Your task to perform on an android device: Open Youtube and go to the subscriptions tab Image 0: 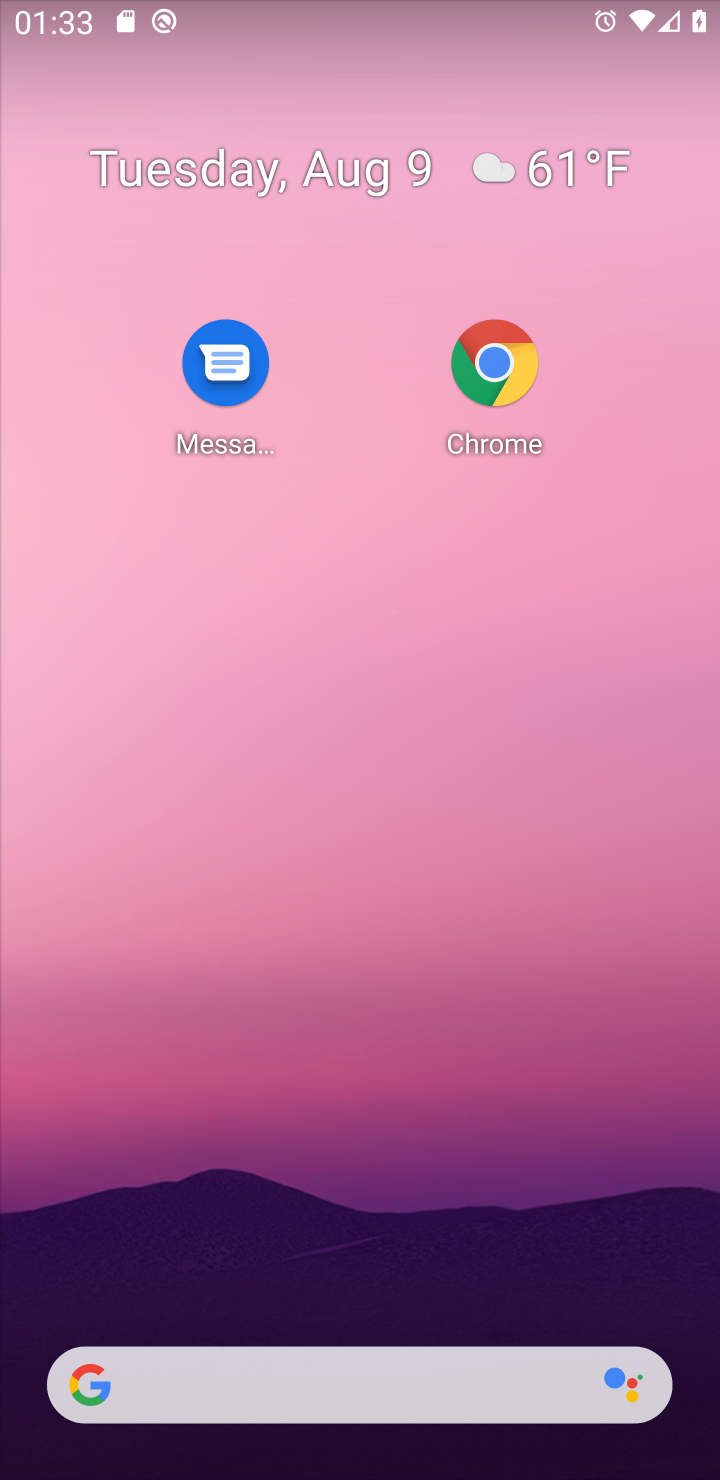
Step 0: drag from (326, 1240) to (501, 426)
Your task to perform on an android device: Open Youtube and go to the subscriptions tab Image 1: 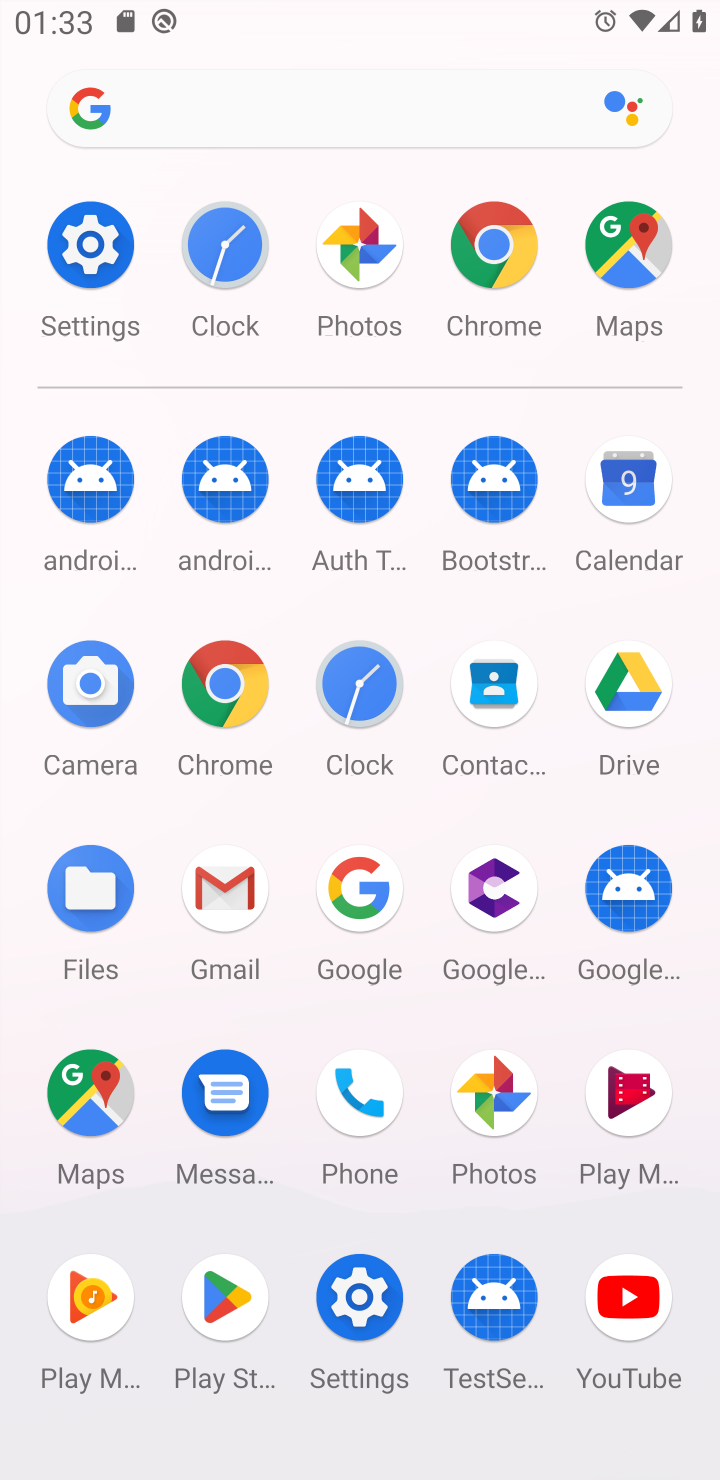
Step 1: click (602, 1322)
Your task to perform on an android device: Open Youtube and go to the subscriptions tab Image 2: 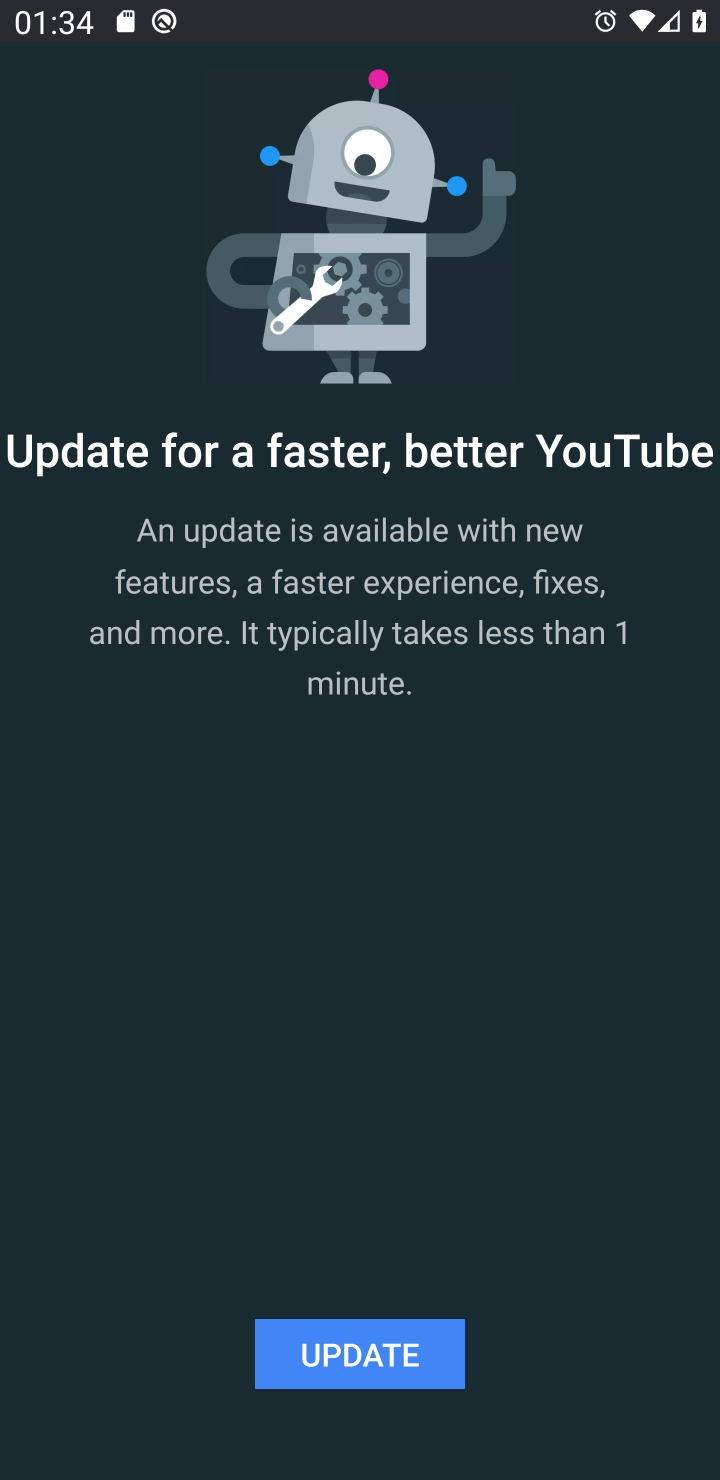
Step 2: task complete